Your task to perform on an android device: Go to battery settings Image 0: 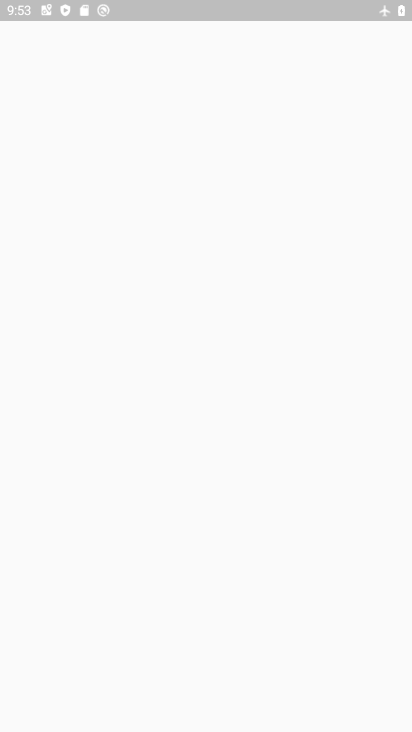
Step 0: press home button
Your task to perform on an android device: Go to battery settings Image 1: 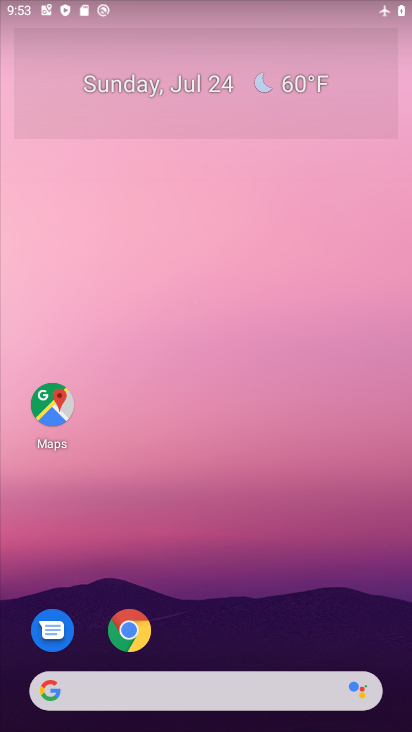
Step 1: drag from (224, 630) to (234, 168)
Your task to perform on an android device: Go to battery settings Image 2: 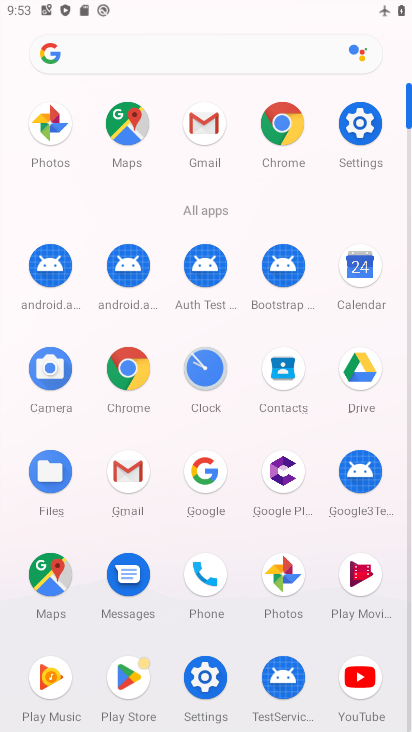
Step 2: click (205, 679)
Your task to perform on an android device: Go to battery settings Image 3: 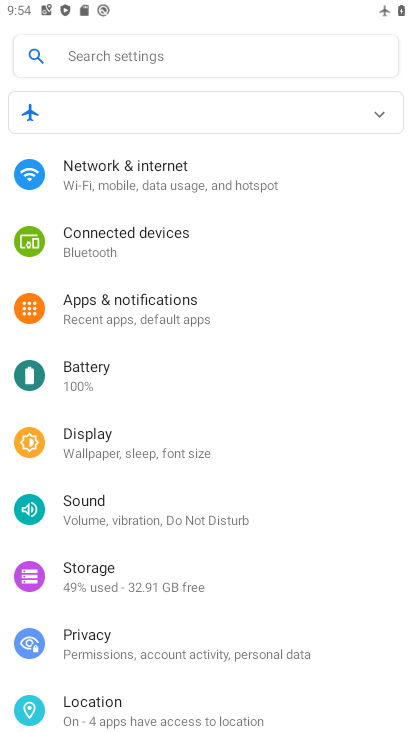
Step 3: click (114, 372)
Your task to perform on an android device: Go to battery settings Image 4: 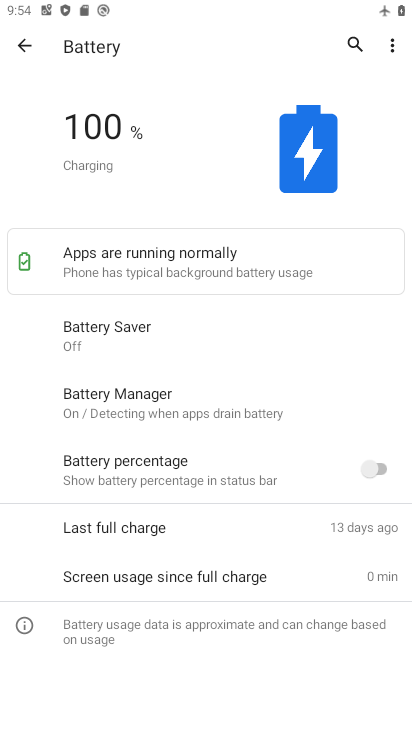
Step 4: task complete